Your task to perform on an android device: see sites visited before in the chrome app Image 0: 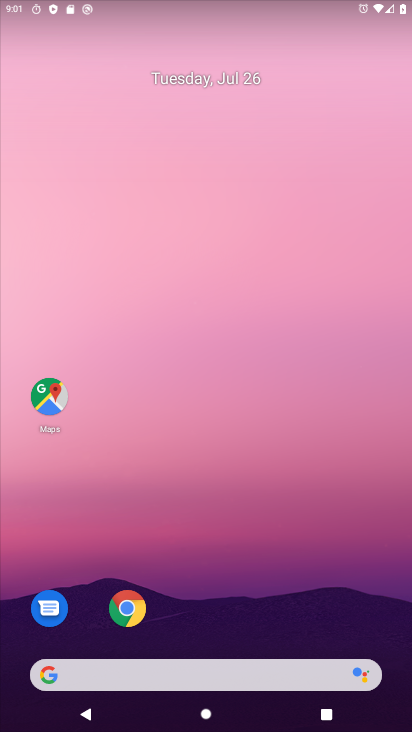
Step 0: click (143, 613)
Your task to perform on an android device: see sites visited before in the chrome app Image 1: 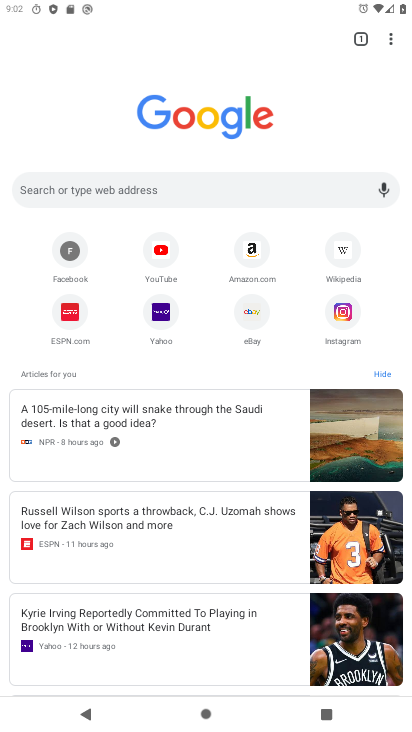
Step 1: click (385, 36)
Your task to perform on an android device: see sites visited before in the chrome app Image 2: 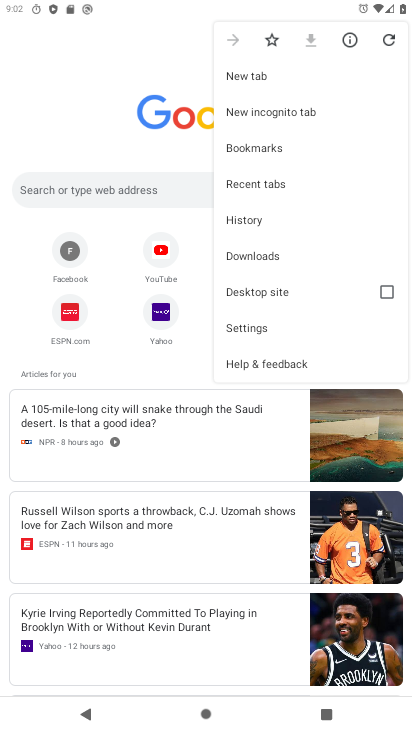
Step 2: click (296, 217)
Your task to perform on an android device: see sites visited before in the chrome app Image 3: 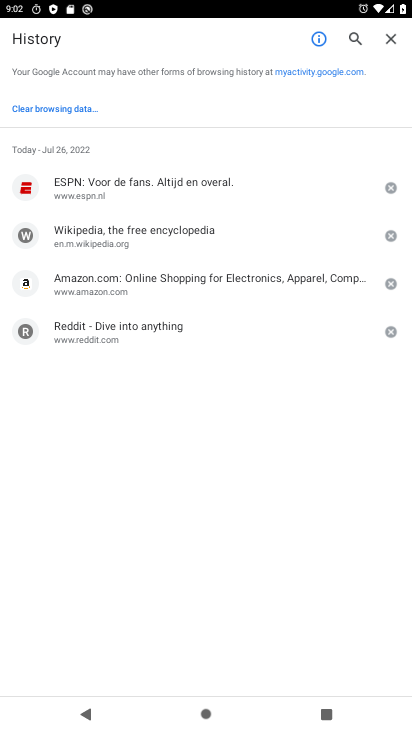
Step 3: task complete